Your task to perform on an android device: change your default location settings in chrome Image 0: 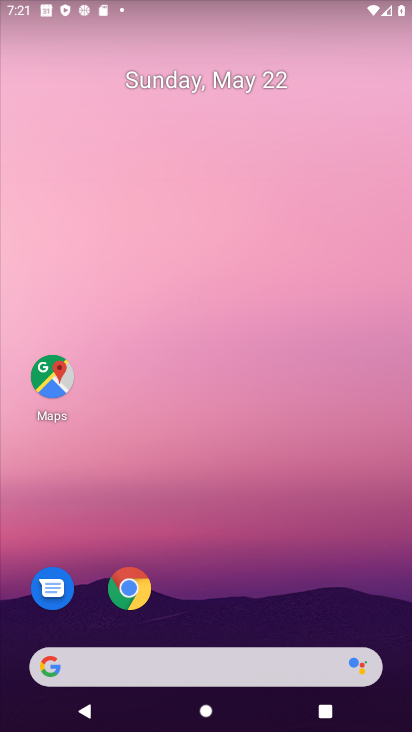
Step 0: click (128, 591)
Your task to perform on an android device: change your default location settings in chrome Image 1: 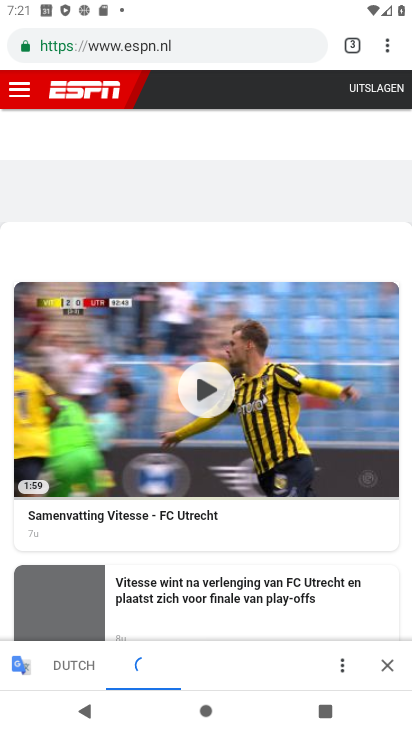
Step 1: click (391, 39)
Your task to perform on an android device: change your default location settings in chrome Image 2: 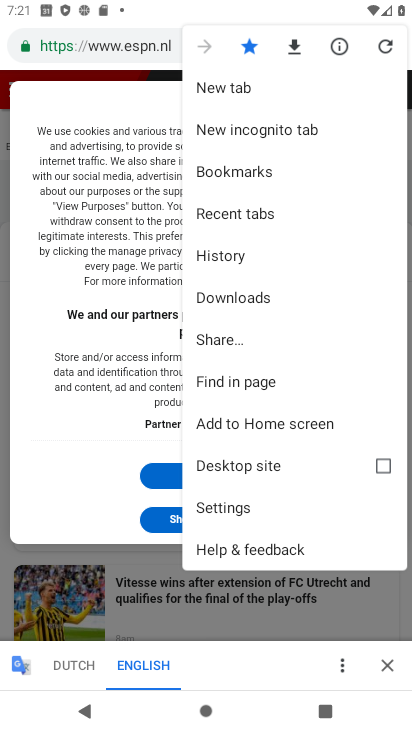
Step 2: click (243, 502)
Your task to perform on an android device: change your default location settings in chrome Image 3: 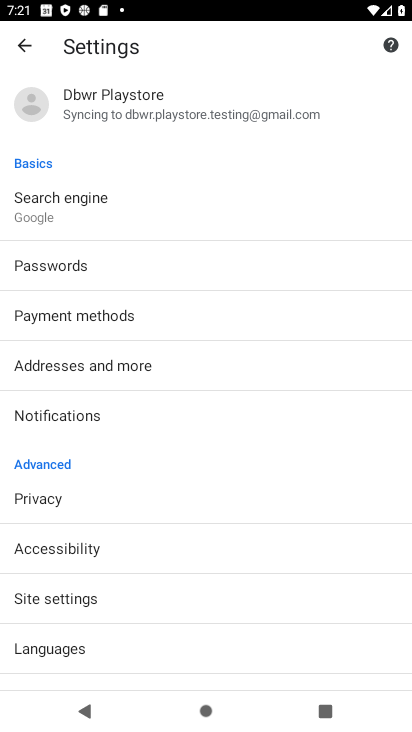
Step 3: drag from (235, 487) to (171, 91)
Your task to perform on an android device: change your default location settings in chrome Image 4: 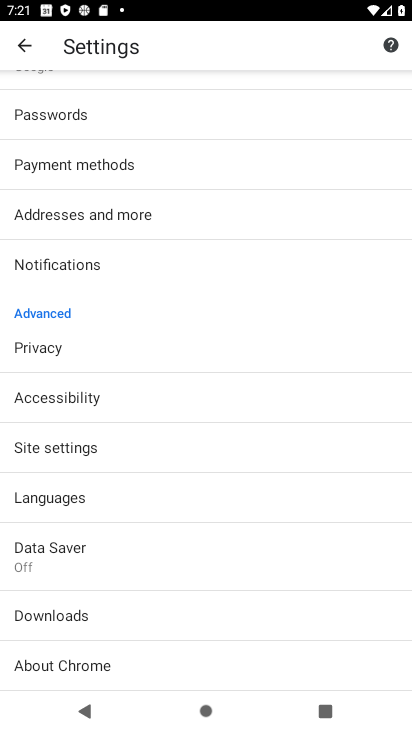
Step 4: click (37, 448)
Your task to perform on an android device: change your default location settings in chrome Image 5: 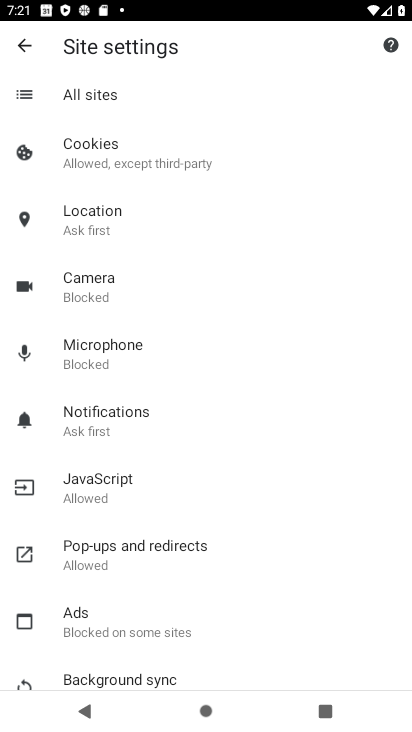
Step 5: click (94, 212)
Your task to perform on an android device: change your default location settings in chrome Image 6: 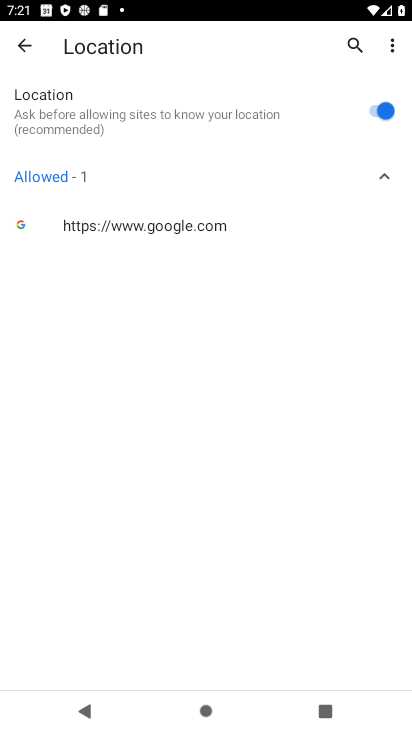
Step 6: click (384, 107)
Your task to perform on an android device: change your default location settings in chrome Image 7: 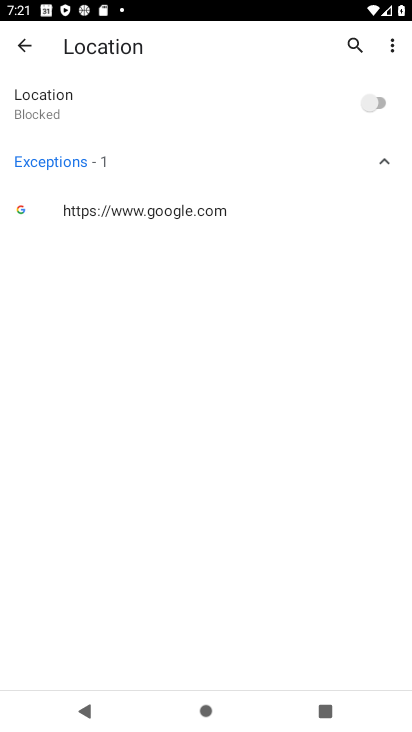
Step 7: task complete